Your task to perform on an android device: open the mobile data screen to see how much data has been used Image 0: 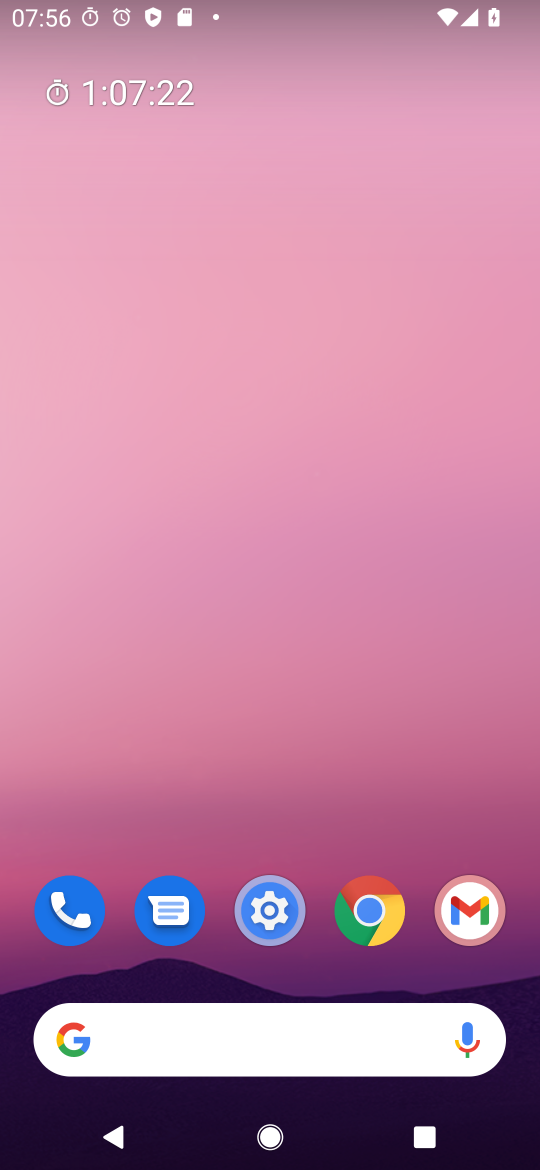
Step 0: drag from (219, 1044) to (276, 268)
Your task to perform on an android device: open the mobile data screen to see how much data has been used Image 1: 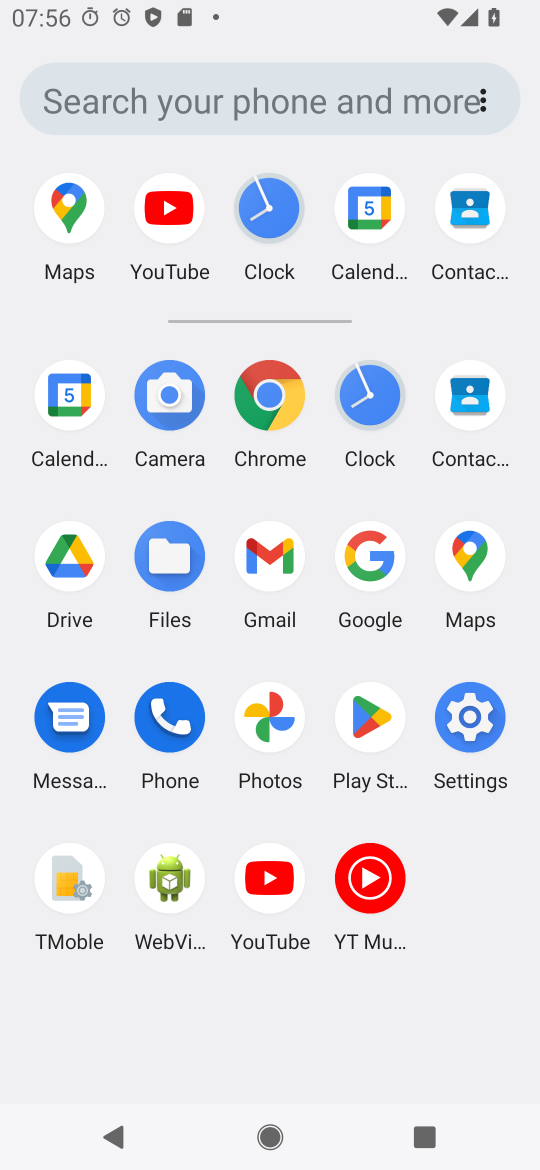
Step 1: click (457, 704)
Your task to perform on an android device: open the mobile data screen to see how much data has been used Image 2: 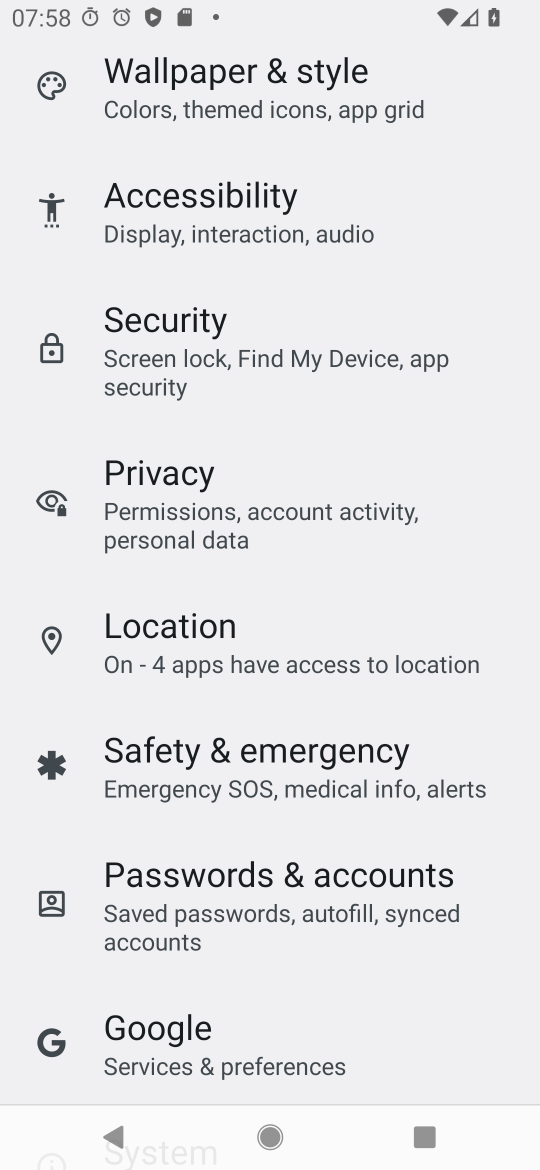
Step 2: drag from (258, 359) to (331, 1103)
Your task to perform on an android device: open the mobile data screen to see how much data has been used Image 3: 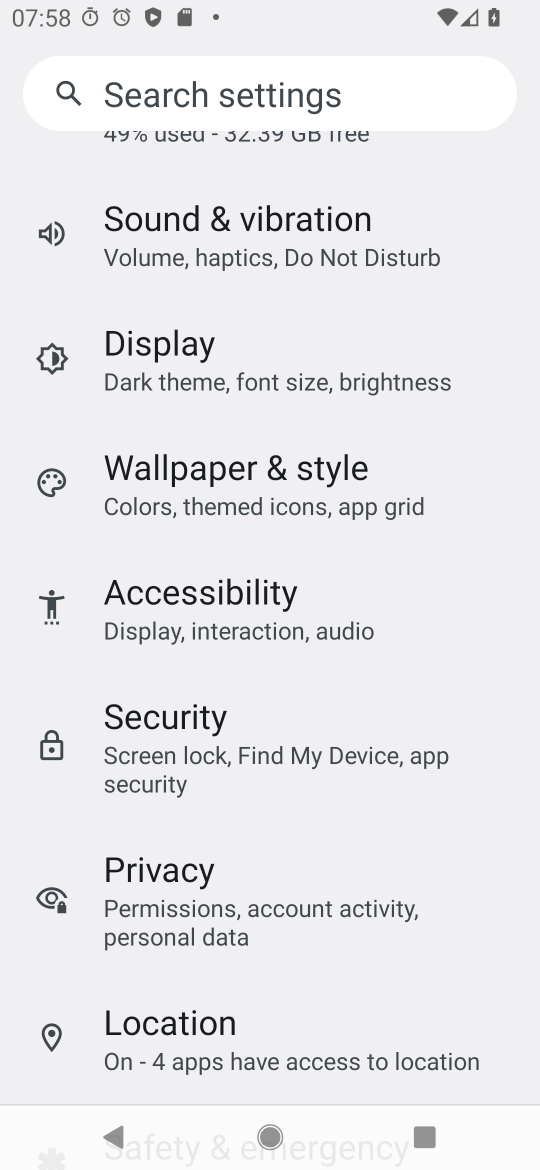
Step 3: drag from (345, 347) to (240, 1002)
Your task to perform on an android device: open the mobile data screen to see how much data has been used Image 4: 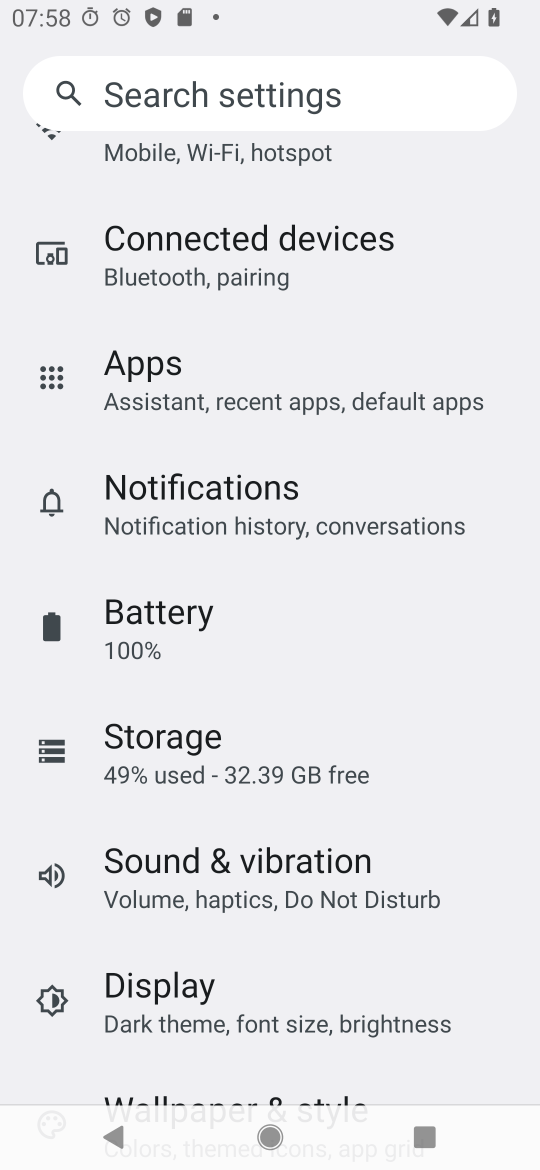
Step 4: drag from (345, 399) to (333, 989)
Your task to perform on an android device: open the mobile data screen to see how much data has been used Image 5: 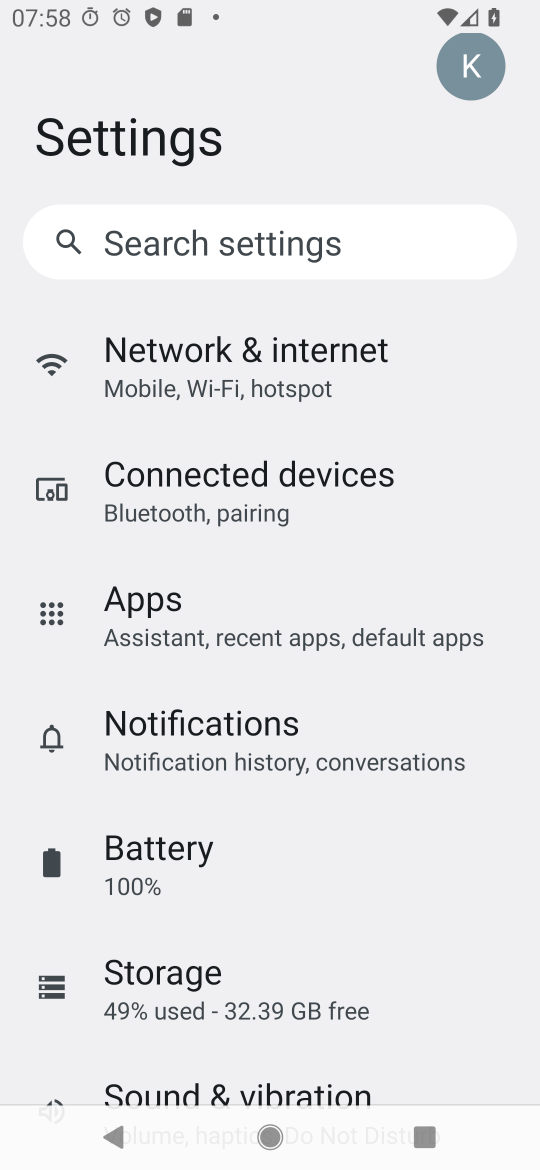
Step 5: click (281, 366)
Your task to perform on an android device: open the mobile data screen to see how much data has been used Image 6: 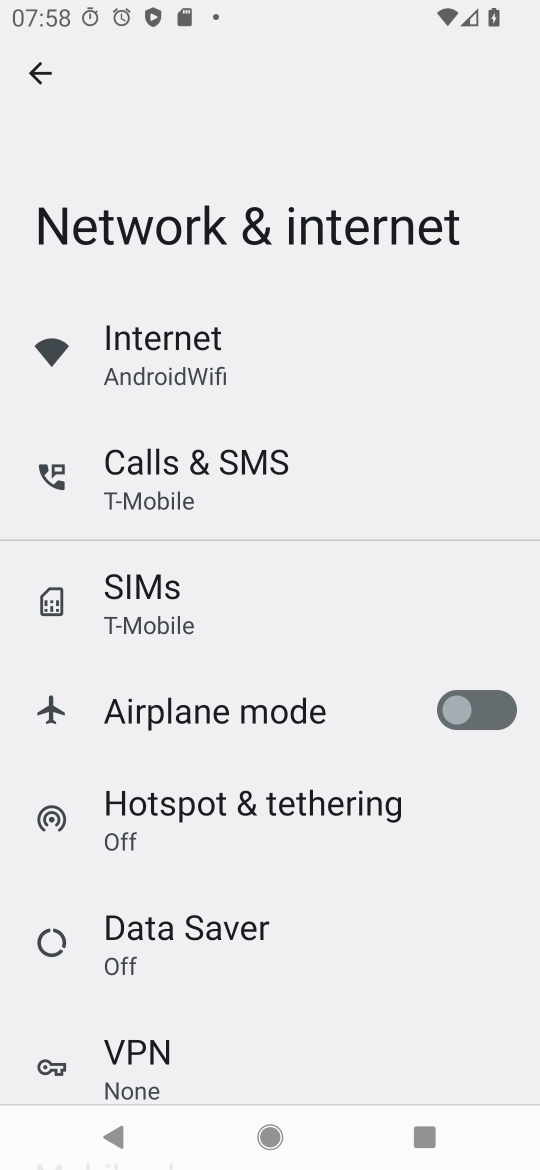
Step 6: click (235, 921)
Your task to perform on an android device: open the mobile data screen to see how much data has been used Image 7: 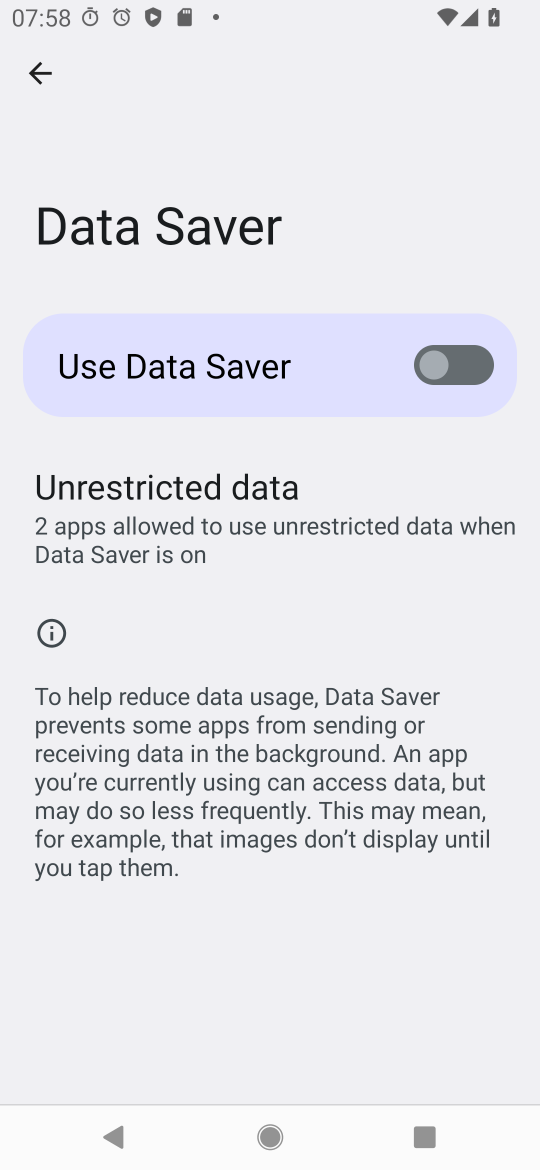
Step 7: task complete